Your task to perform on an android device: Open the web browser Image 0: 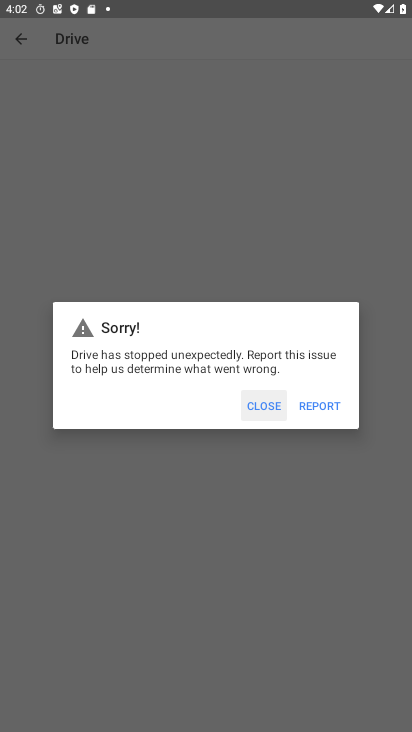
Step 0: press back button
Your task to perform on an android device: Open the web browser Image 1: 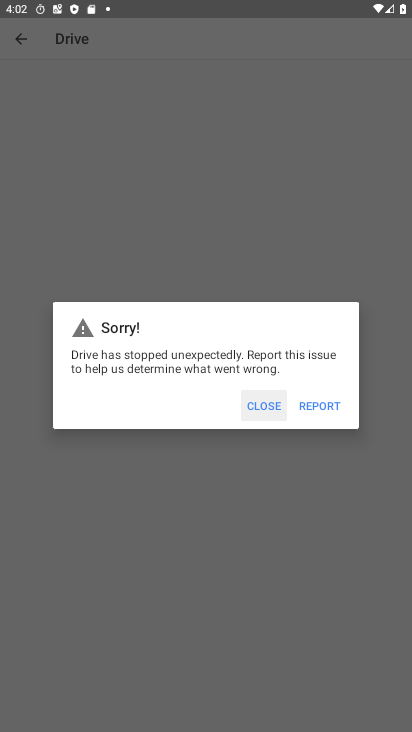
Step 1: press back button
Your task to perform on an android device: Open the web browser Image 2: 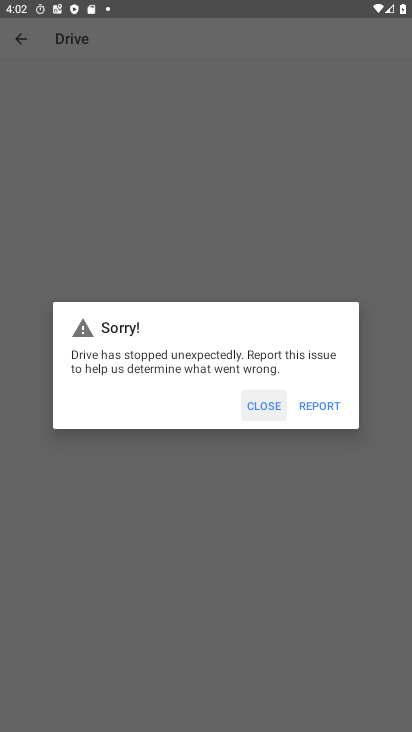
Step 2: press home button
Your task to perform on an android device: Open the web browser Image 3: 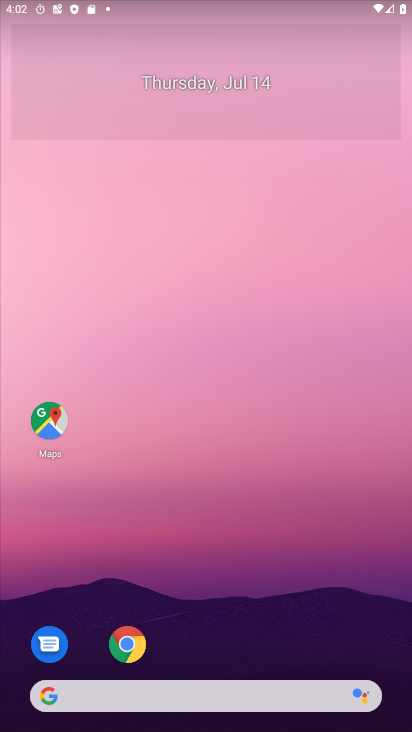
Step 3: click (123, 640)
Your task to perform on an android device: Open the web browser Image 4: 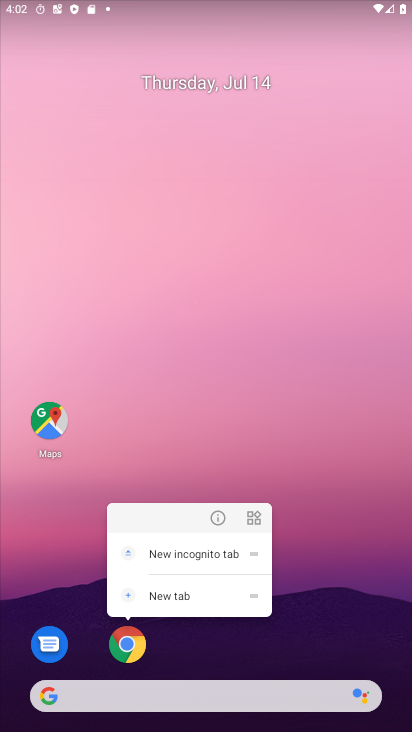
Step 4: click (136, 645)
Your task to perform on an android device: Open the web browser Image 5: 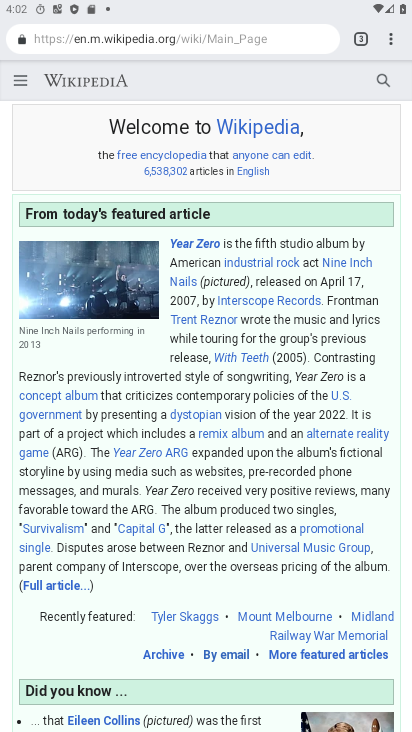
Step 5: task complete